Your task to perform on an android device: set the timer Image 0: 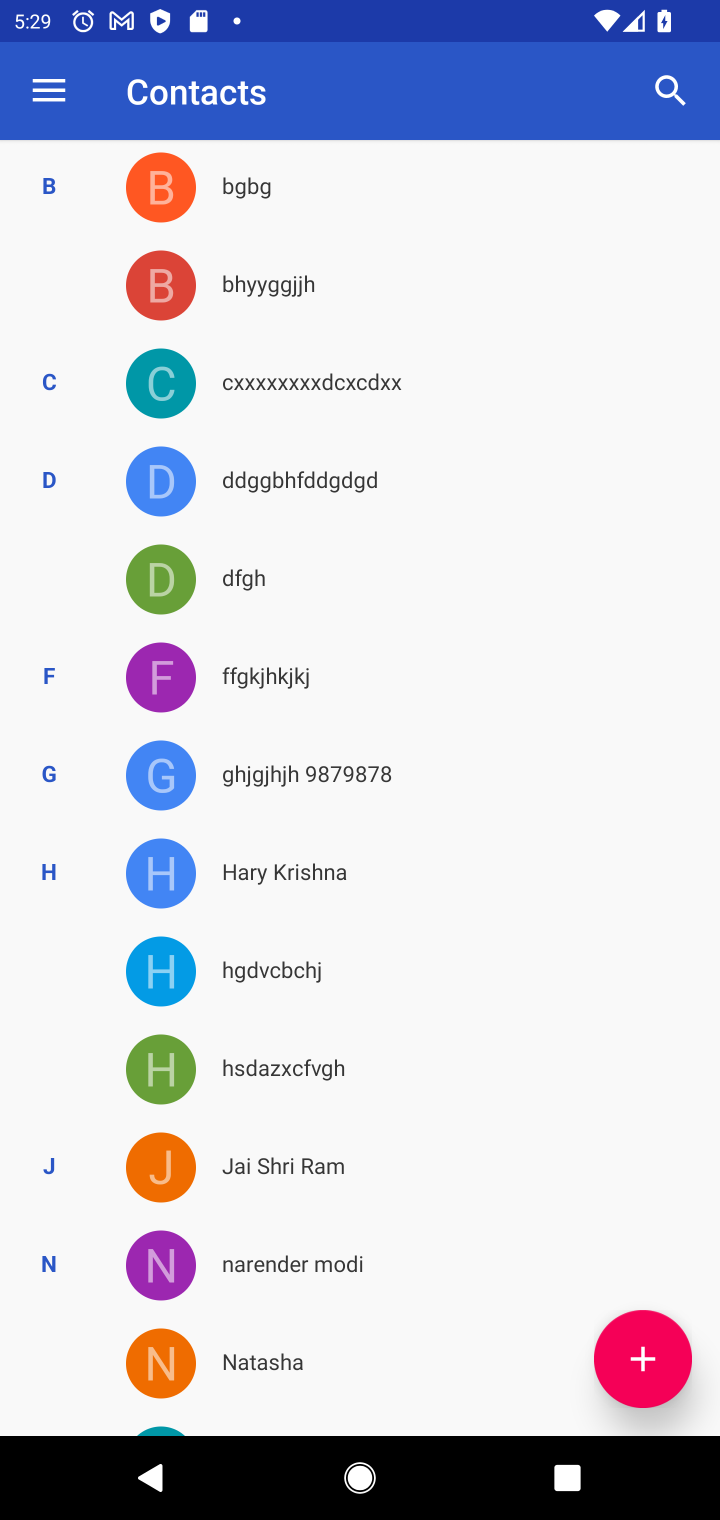
Step 0: press home button
Your task to perform on an android device: set the timer Image 1: 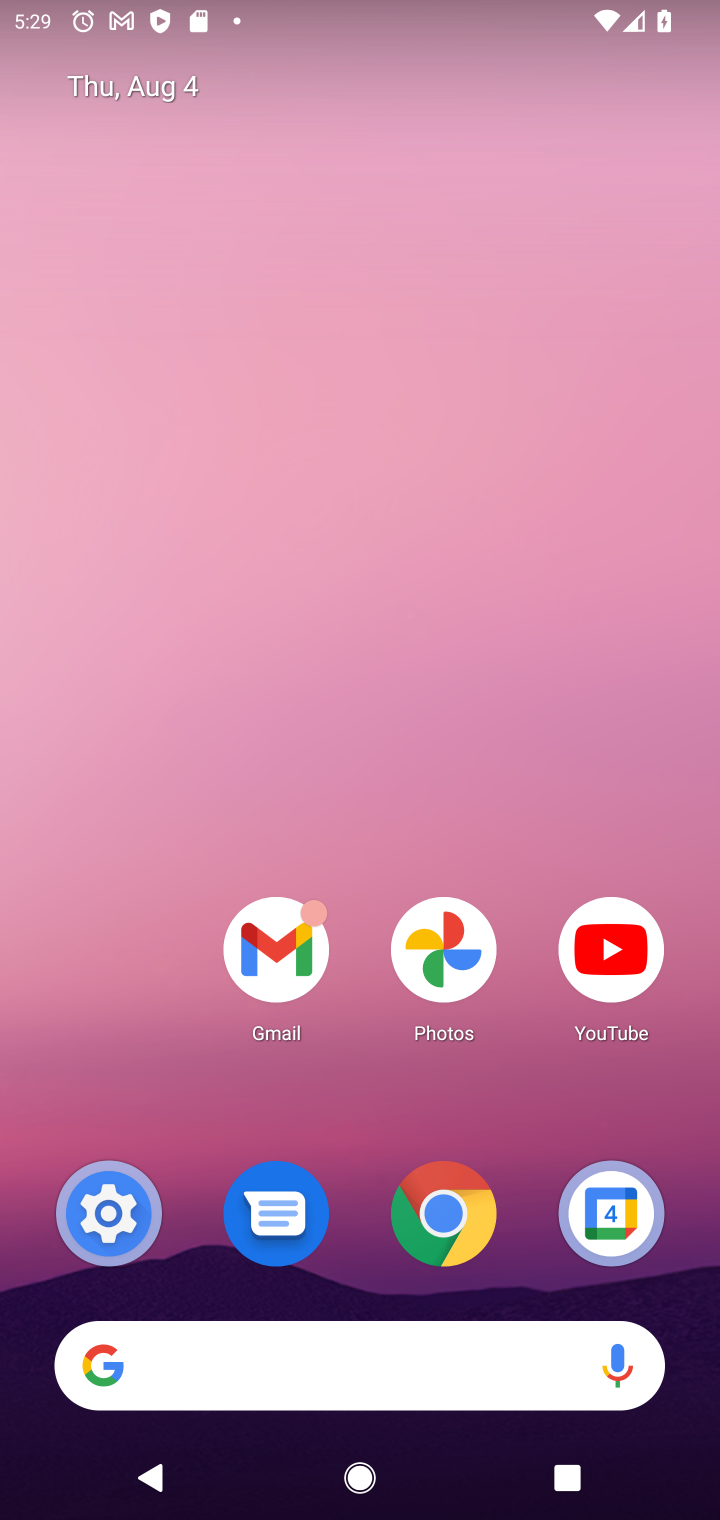
Step 1: drag from (173, 1059) to (330, 67)
Your task to perform on an android device: set the timer Image 2: 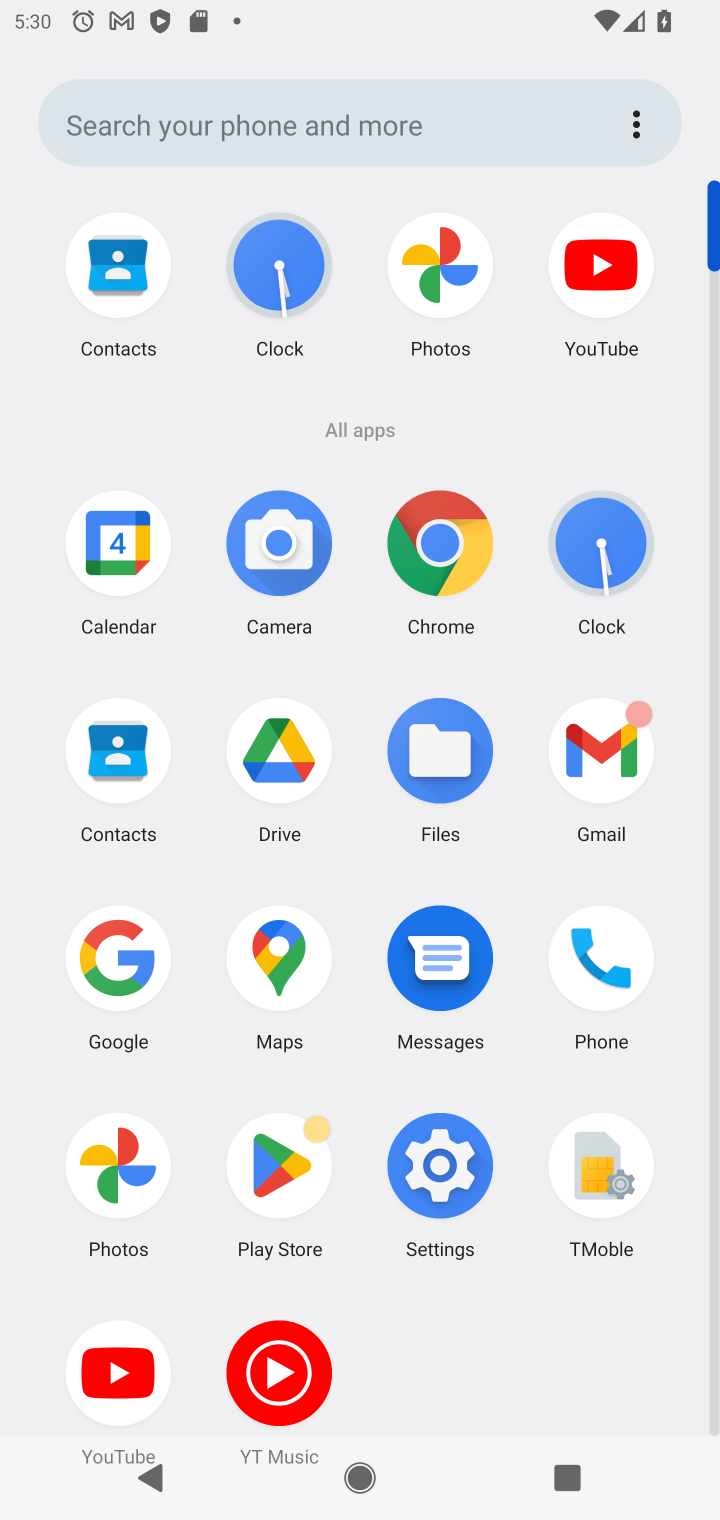
Step 2: click (281, 270)
Your task to perform on an android device: set the timer Image 3: 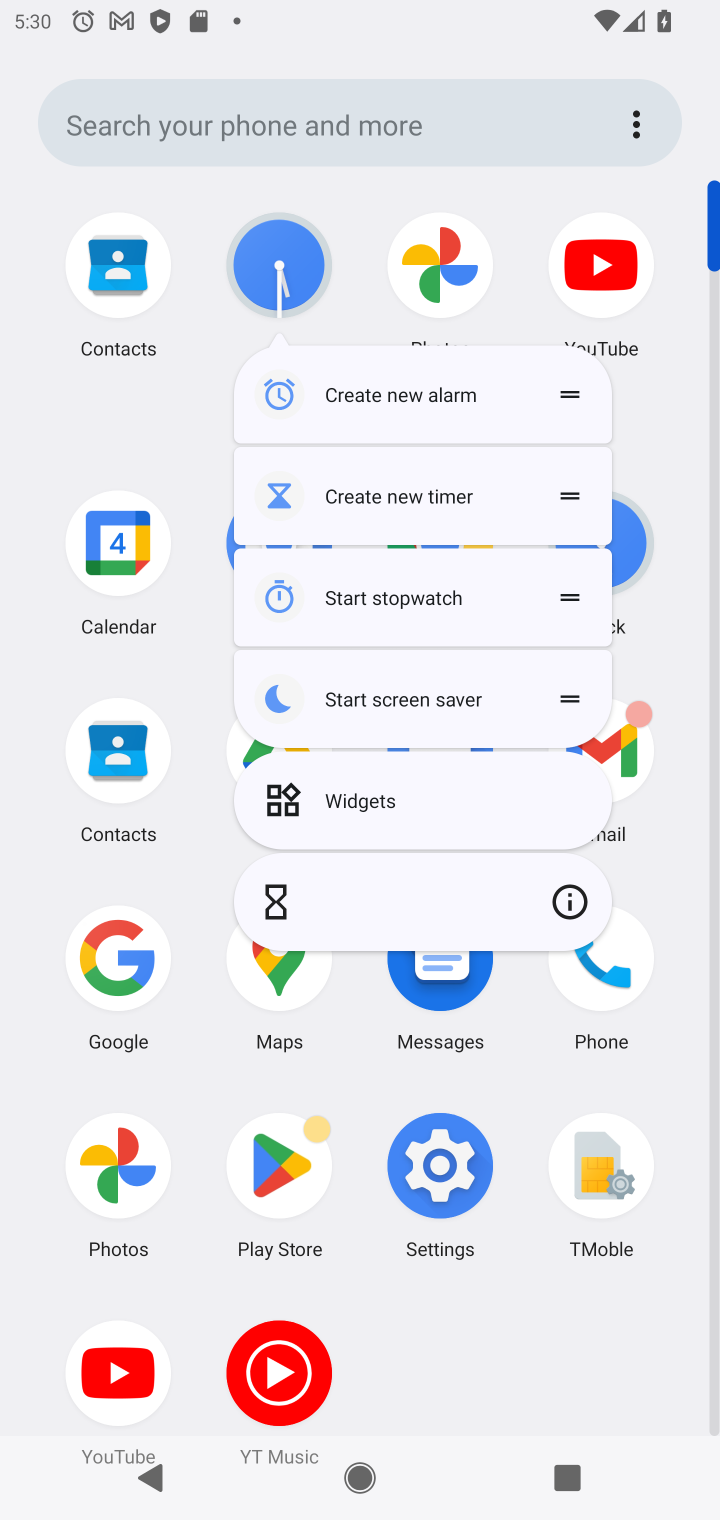
Step 3: click (281, 270)
Your task to perform on an android device: set the timer Image 4: 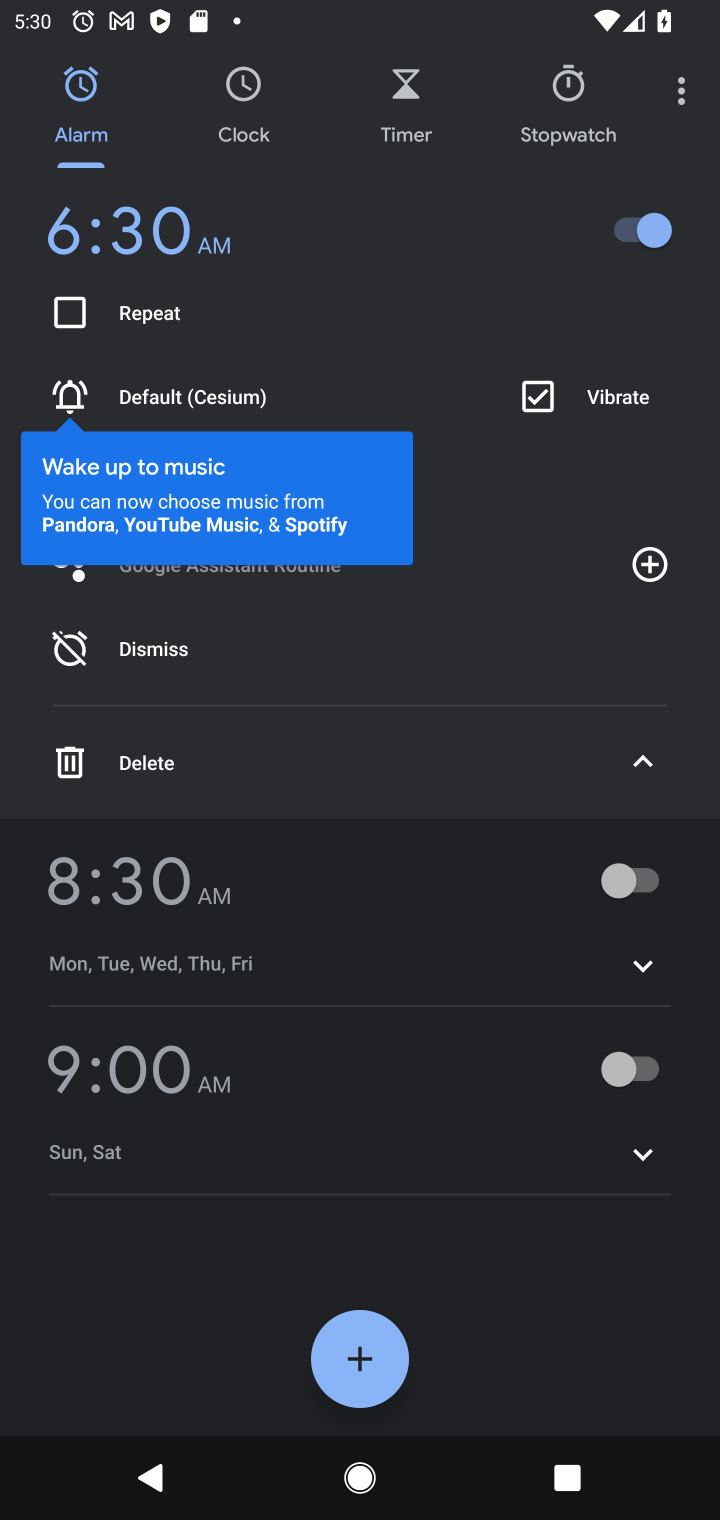
Step 4: click (421, 116)
Your task to perform on an android device: set the timer Image 5: 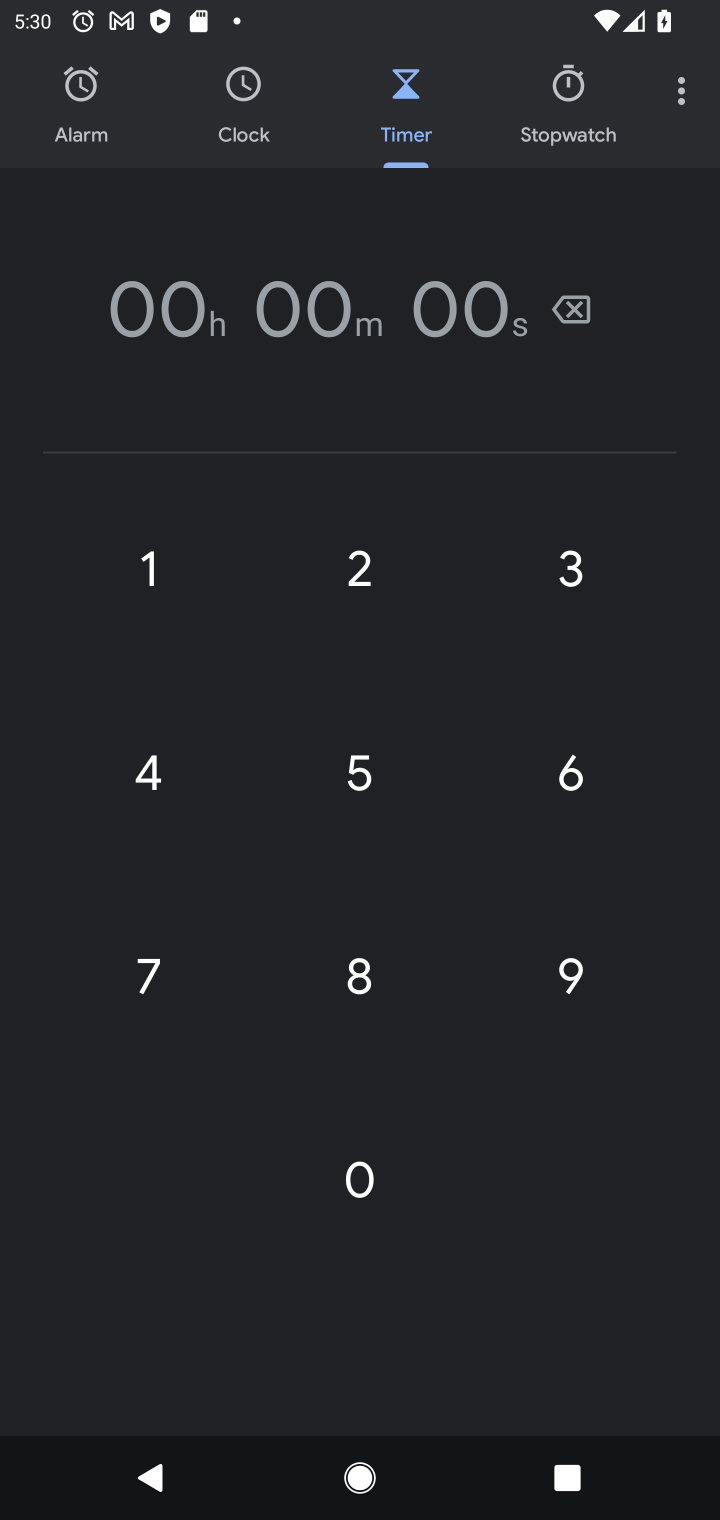
Step 5: click (356, 977)
Your task to perform on an android device: set the timer Image 6: 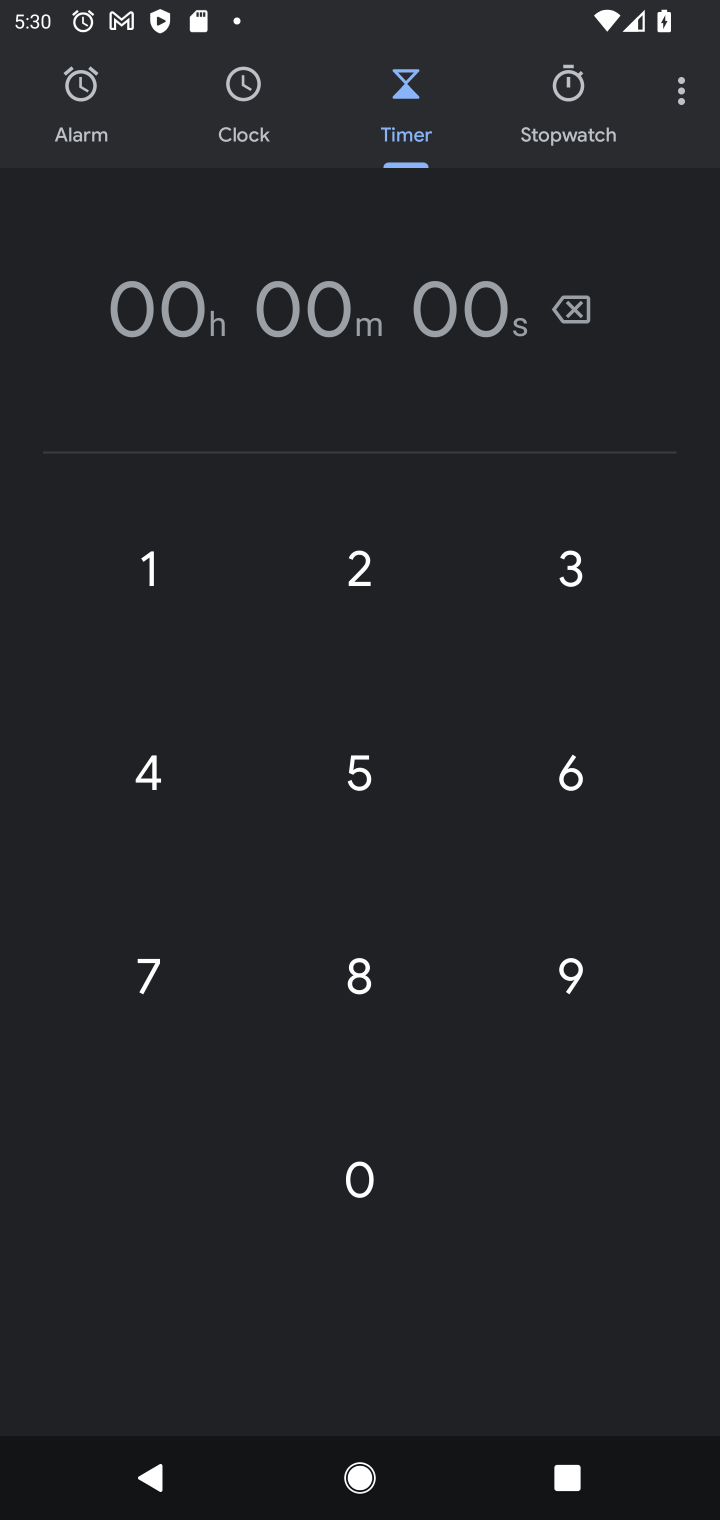
Step 6: click (356, 1195)
Your task to perform on an android device: set the timer Image 7: 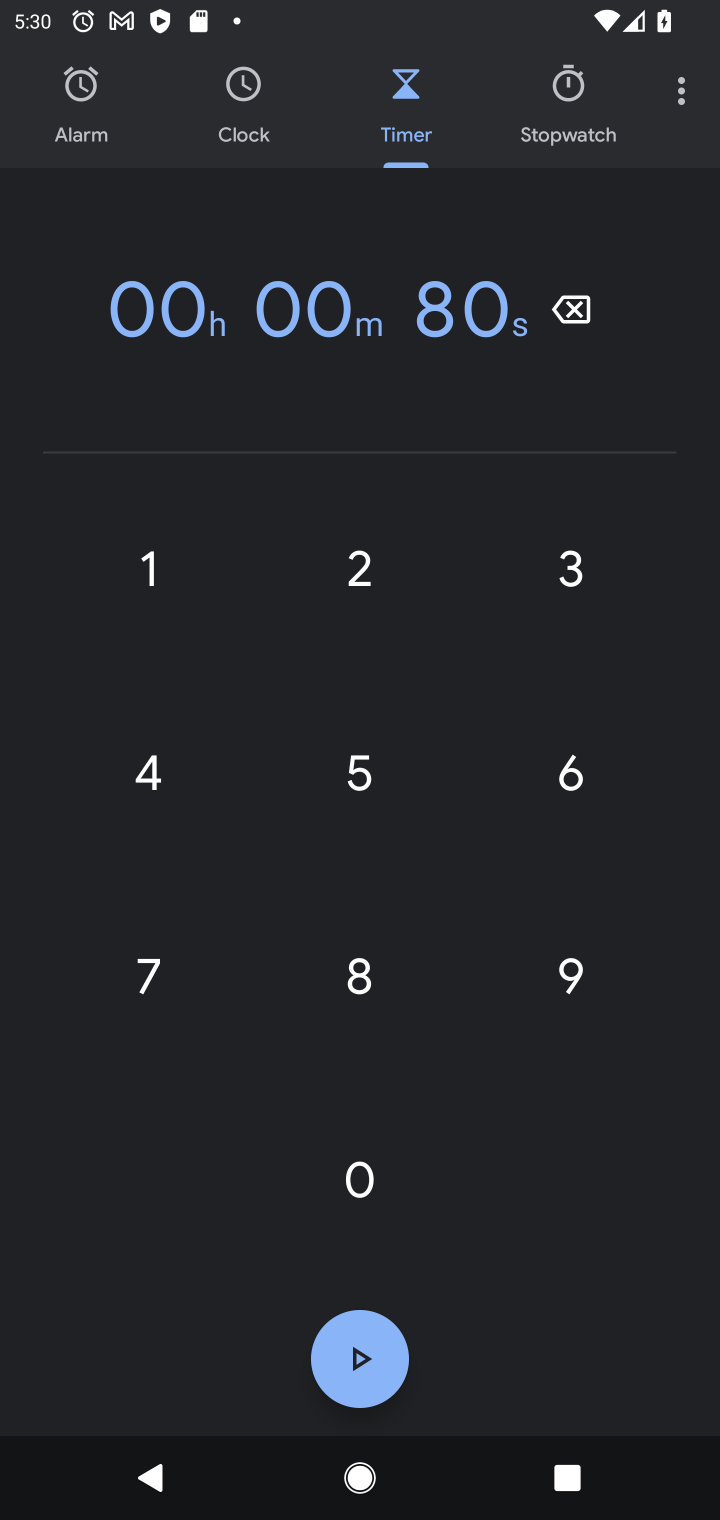
Step 7: click (356, 1362)
Your task to perform on an android device: set the timer Image 8: 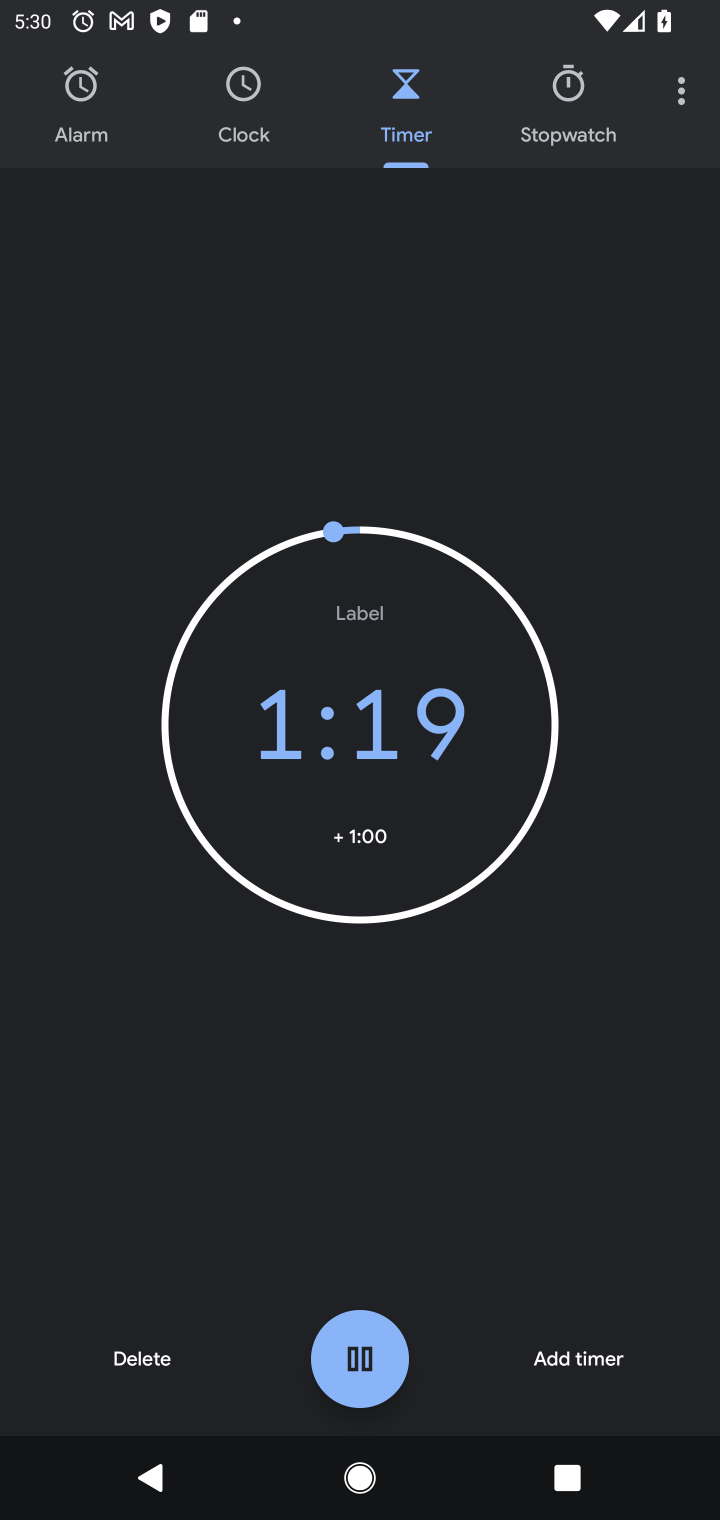
Step 8: task complete